Your task to perform on an android device: Go to Google Image 0: 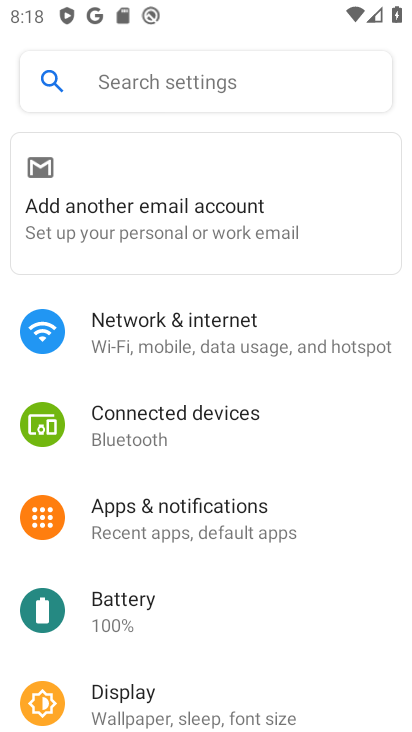
Step 0: press home button
Your task to perform on an android device: Go to Google Image 1: 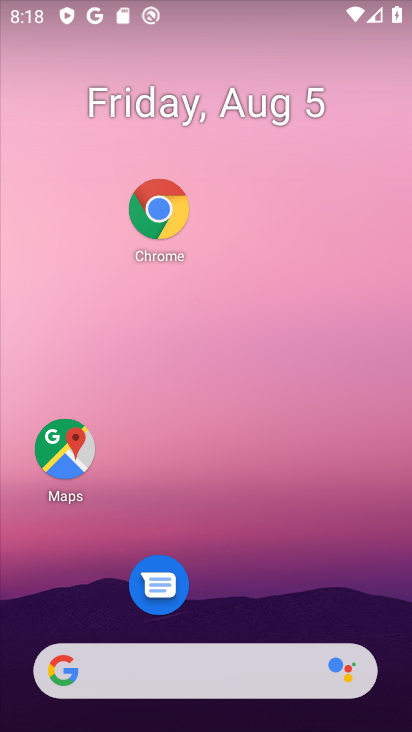
Step 1: drag from (218, 630) to (189, 101)
Your task to perform on an android device: Go to Google Image 2: 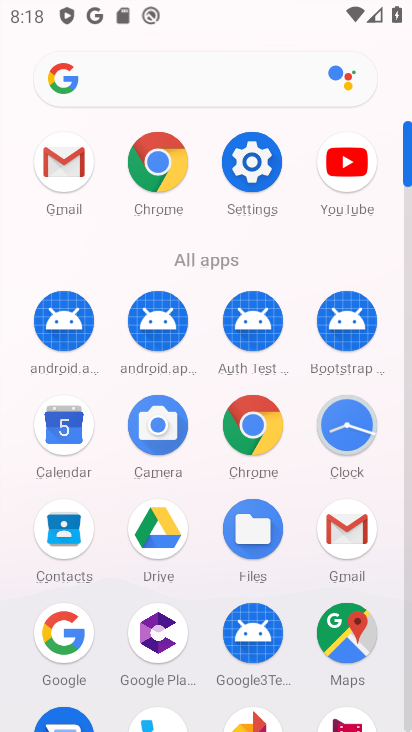
Step 2: click (69, 647)
Your task to perform on an android device: Go to Google Image 3: 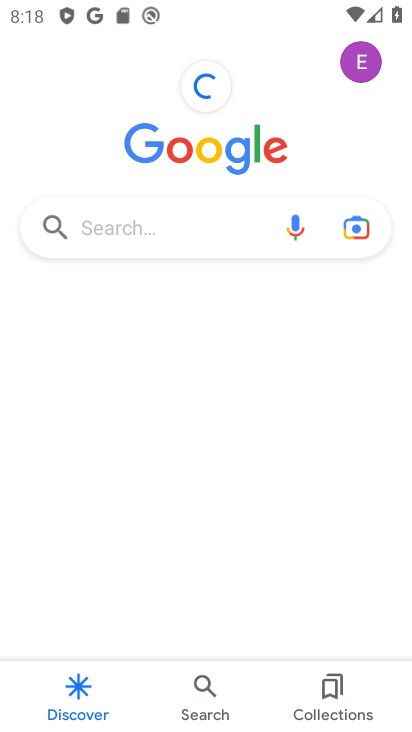
Step 3: click (192, 236)
Your task to perform on an android device: Go to Google Image 4: 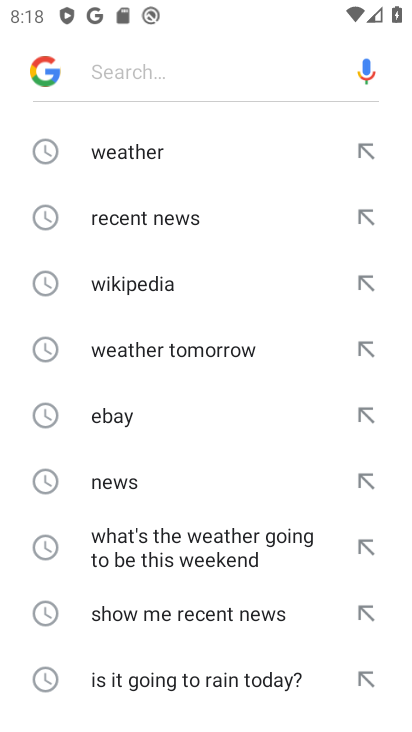
Step 4: task complete